Your task to perform on an android device: change notifications settings Image 0: 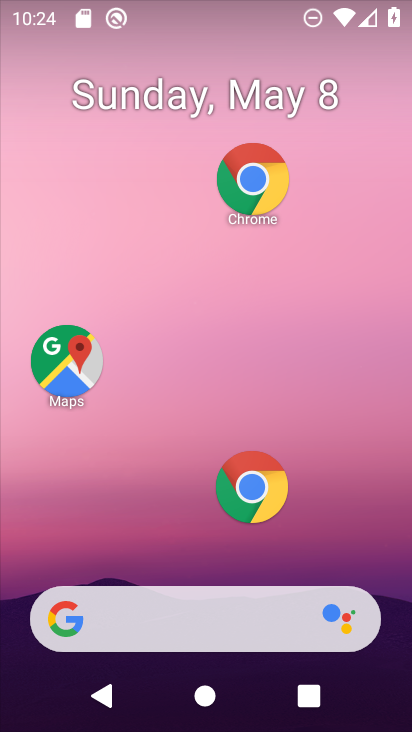
Step 0: drag from (133, 499) to (215, 6)
Your task to perform on an android device: change notifications settings Image 1: 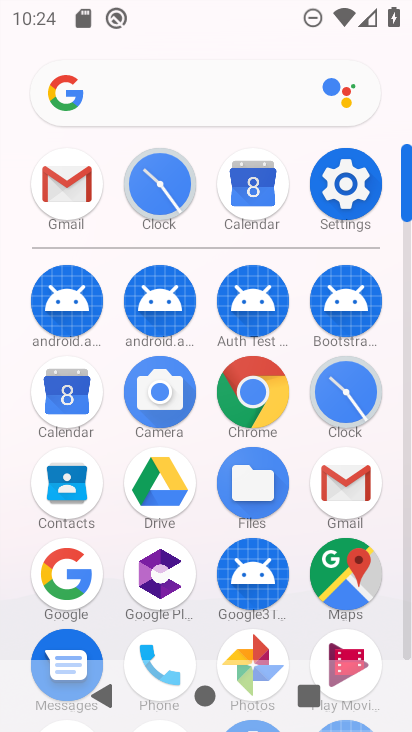
Step 1: click (345, 181)
Your task to perform on an android device: change notifications settings Image 2: 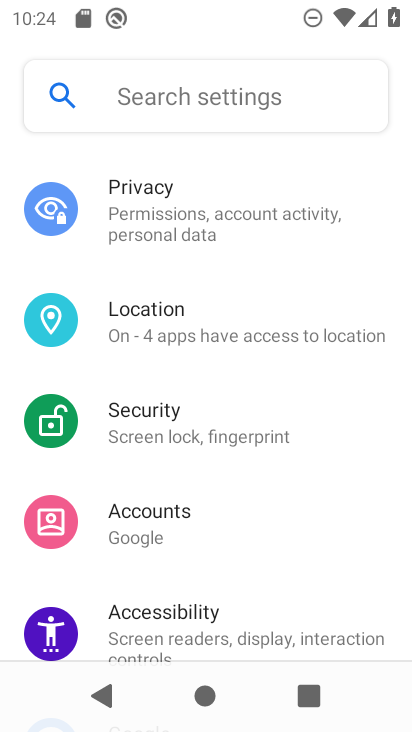
Step 2: drag from (257, 178) to (262, 682)
Your task to perform on an android device: change notifications settings Image 3: 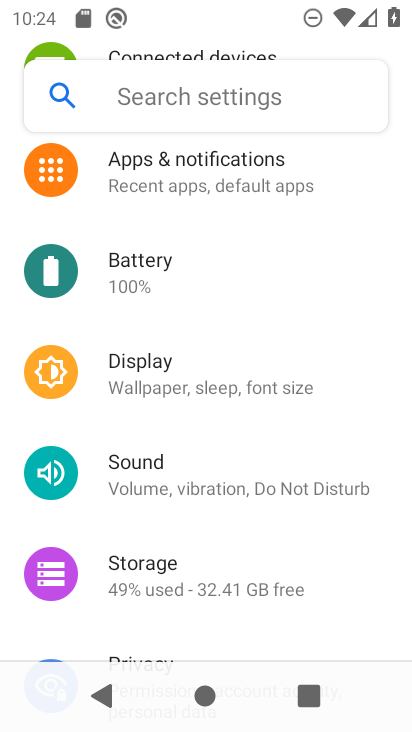
Step 3: click (250, 176)
Your task to perform on an android device: change notifications settings Image 4: 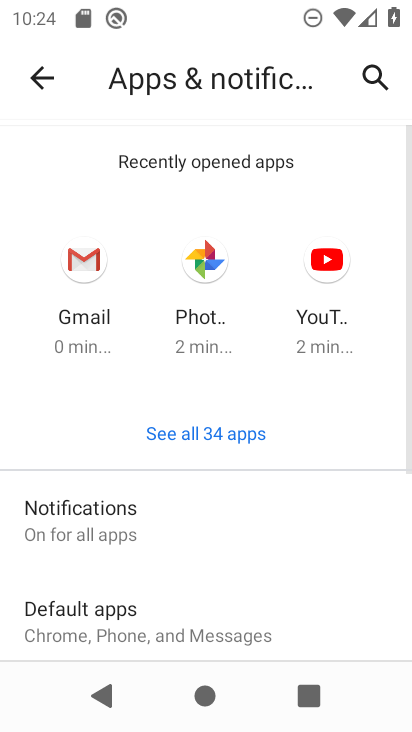
Step 4: click (117, 510)
Your task to perform on an android device: change notifications settings Image 5: 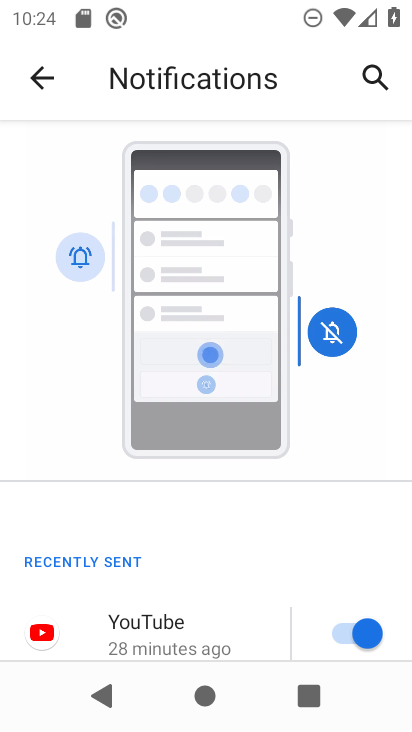
Step 5: drag from (202, 527) to (263, 171)
Your task to perform on an android device: change notifications settings Image 6: 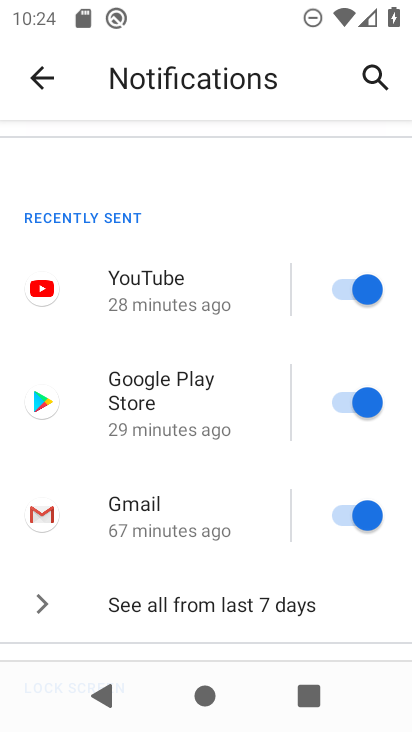
Step 6: drag from (205, 514) to (234, 187)
Your task to perform on an android device: change notifications settings Image 7: 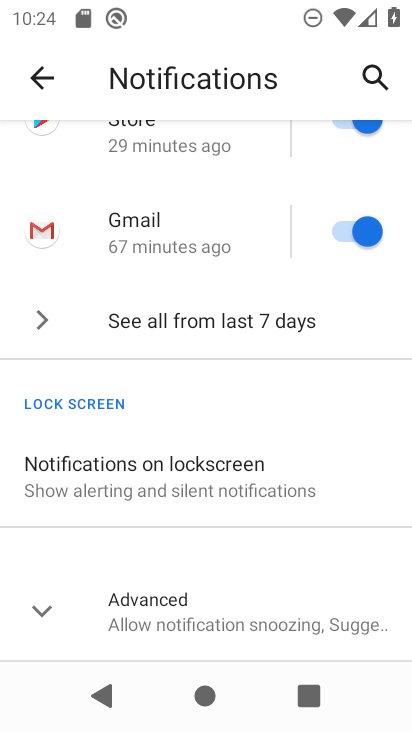
Step 7: click (204, 315)
Your task to perform on an android device: change notifications settings Image 8: 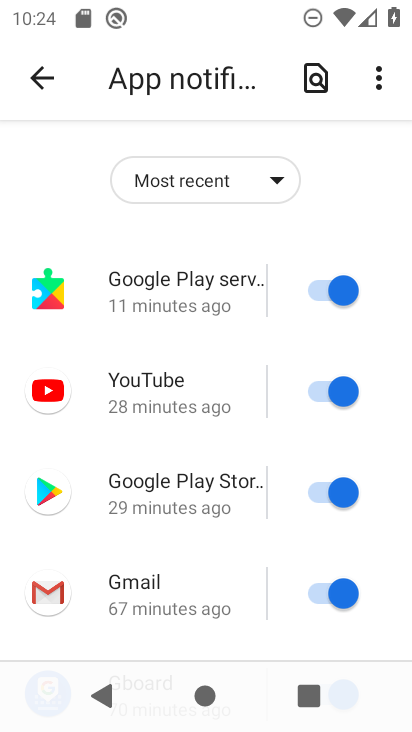
Step 8: click (317, 283)
Your task to perform on an android device: change notifications settings Image 9: 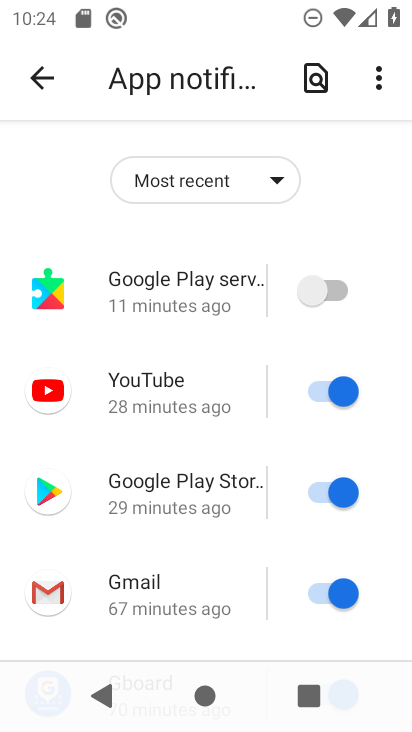
Step 9: click (320, 384)
Your task to perform on an android device: change notifications settings Image 10: 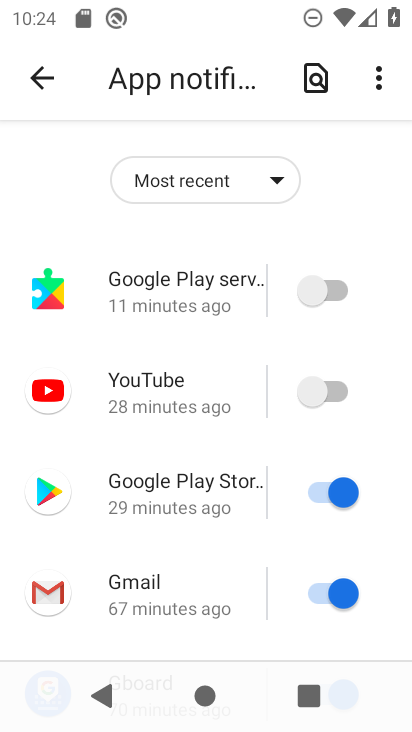
Step 10: click (323, 487)
Your task to perform on an android device: change notifications settings Image 11: 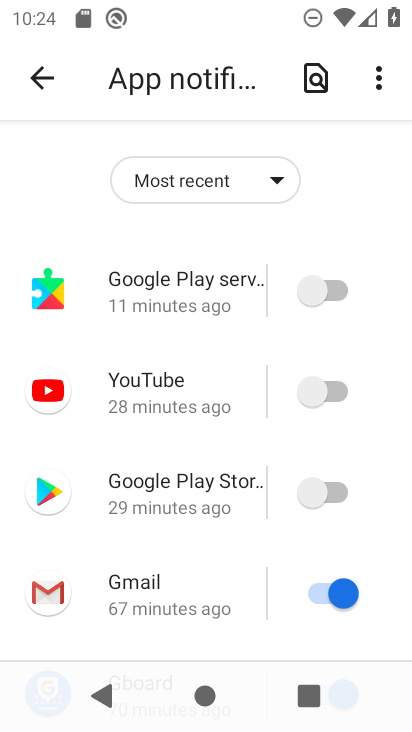
Step 11: click (327, 582)
Your task to perform on an android device: change notifications settings Image 12: 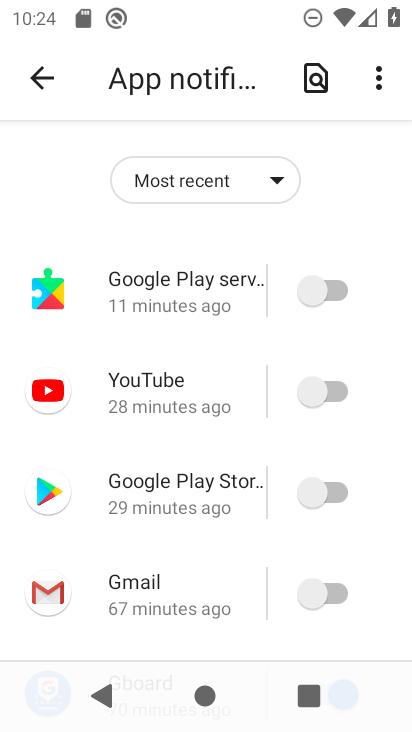
Step 12: drag from (209, 564) to (240, 112)
Your task to perform on an android device: change notifications settings Image 13: 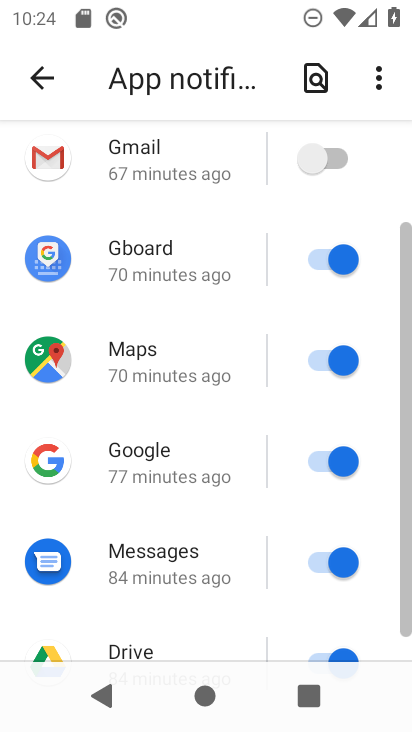
Step 13: click (313, 256)
Your task to perform on an android device: change notifications settings Image 14: 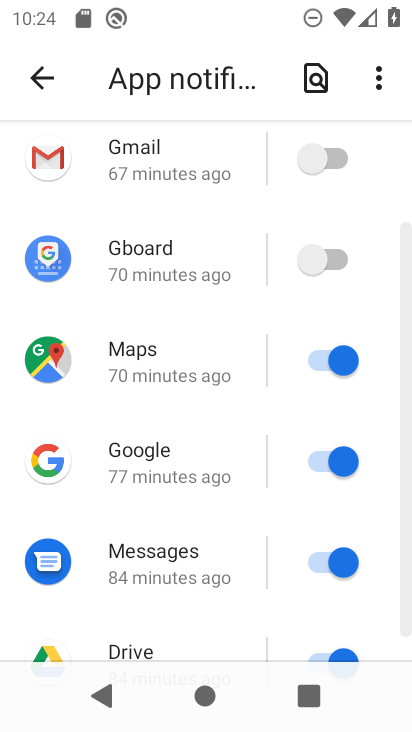
Step 14: click (316, 358)
Your task to perform on an android device: change notifications settings Image 15: 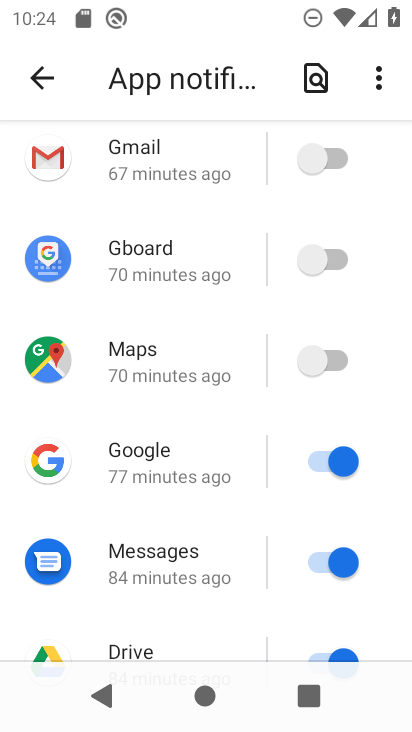
Step 15: click (331, 461)
Your task to perform on an android device: change notifications settings Image 16: 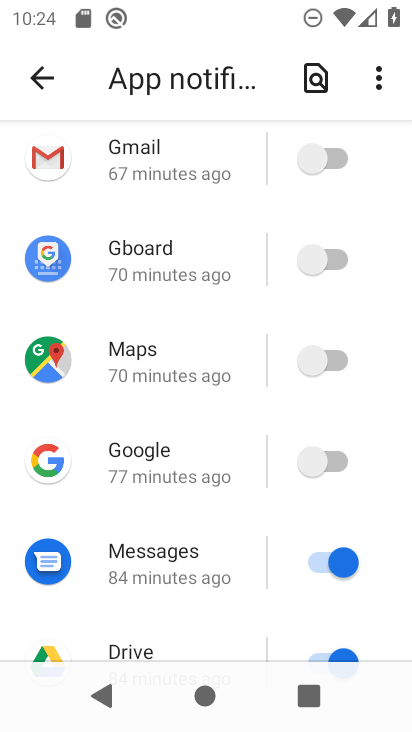
Step 16: click (329, 556)
Your task to perform on an android device: change notifications settings Image 17: 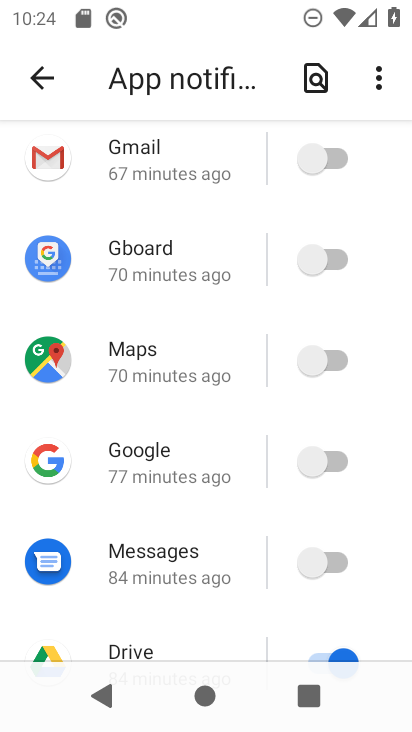
Step 17: drag from (215, 603) to (274, 184)
Your task to perform on an android device: change notifications settings Image 18: 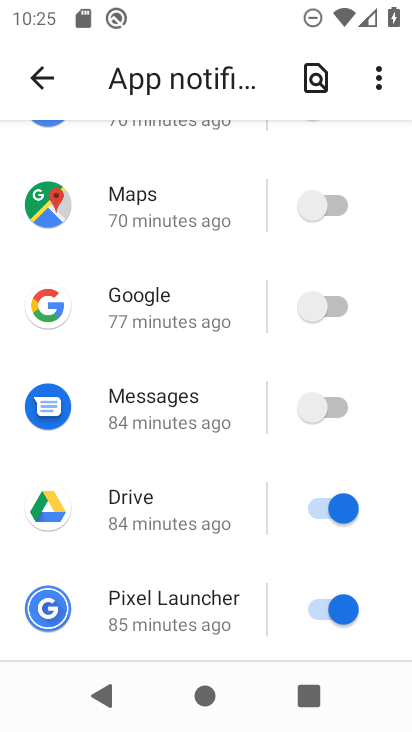
Step 18: click (324, 510)
Your task to perform on an android device: change notifications settings Image 19: 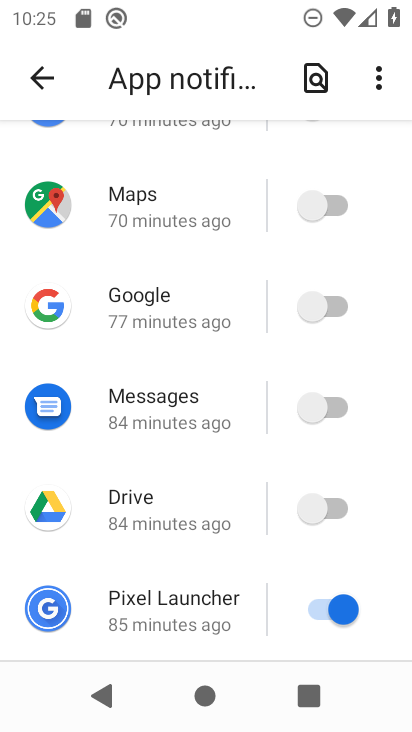
Step 19: click (325, 603)
Your task to perform on an android device: change notifications settings Image 20: 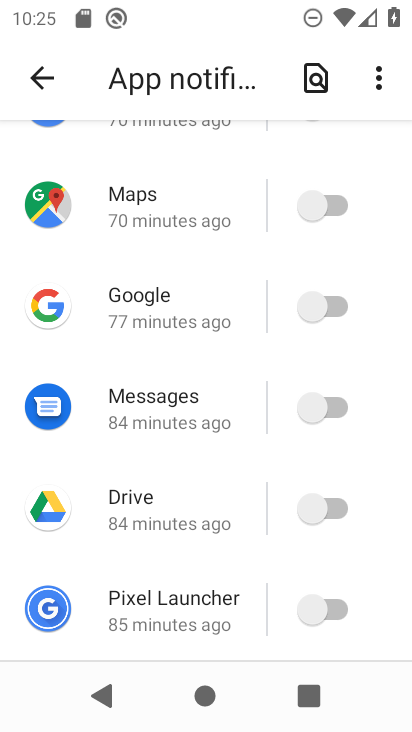
Step 20: task complete